Your task to perform on an android device: Search for flights from San Diego to Seattle Image 0: 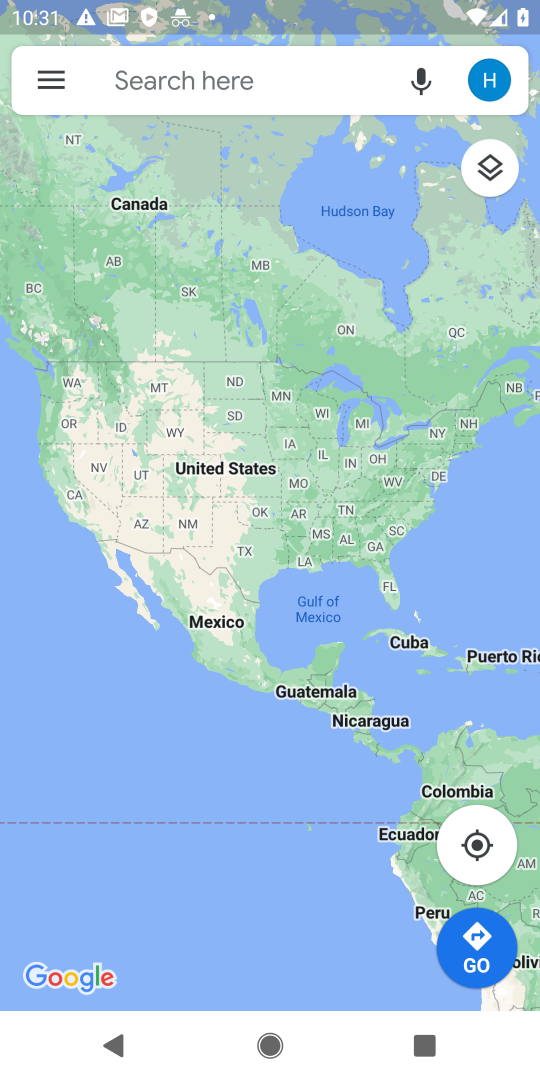
Step 0: press home button
Your task to perform on an android device: Search for flights from San Diego to Seattle Image 1: 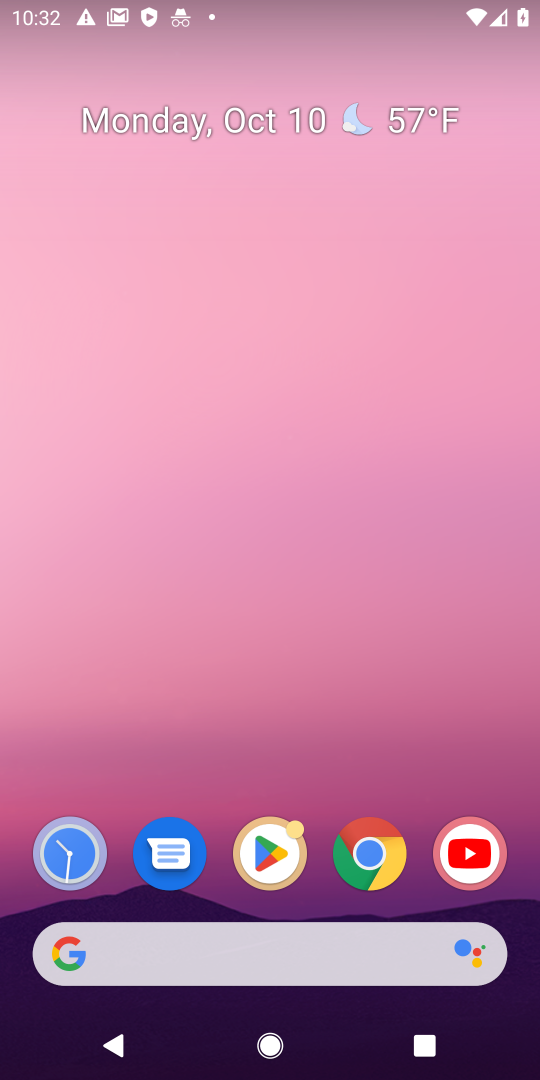
Step 1: click (308, 944)
Your task to perform on an android device: Search for flights from San Diego to Seattle Image 2: 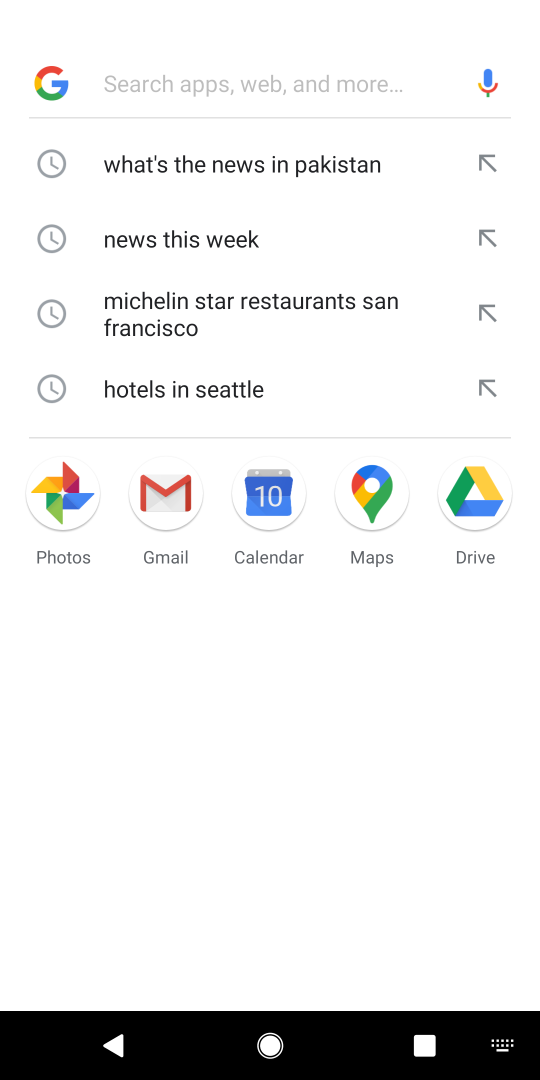
Step 2: type "flights from San Diego to Seattle"
Your task to perform on an android device: Search for flights from San Diego to Seattle Image 3: 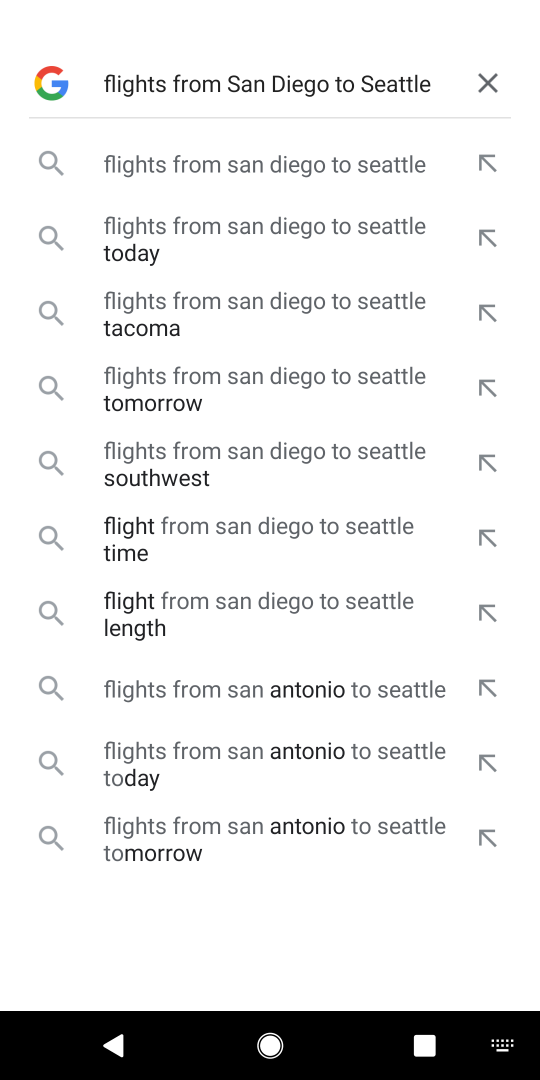
Step 3: press enter
Your task to perform on an android device: Search for flights from San Diego to Seattle Image 4: 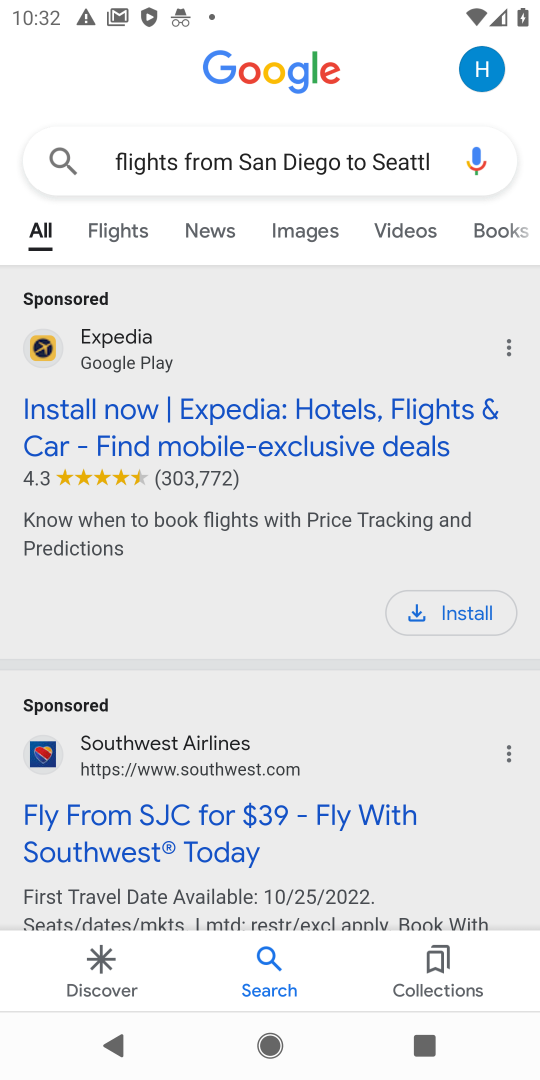
Step 4: drag from (360, 778) to (392, 479)
Your task to perform on an android device: Search for flights from San Diego to Seattle Image 5: 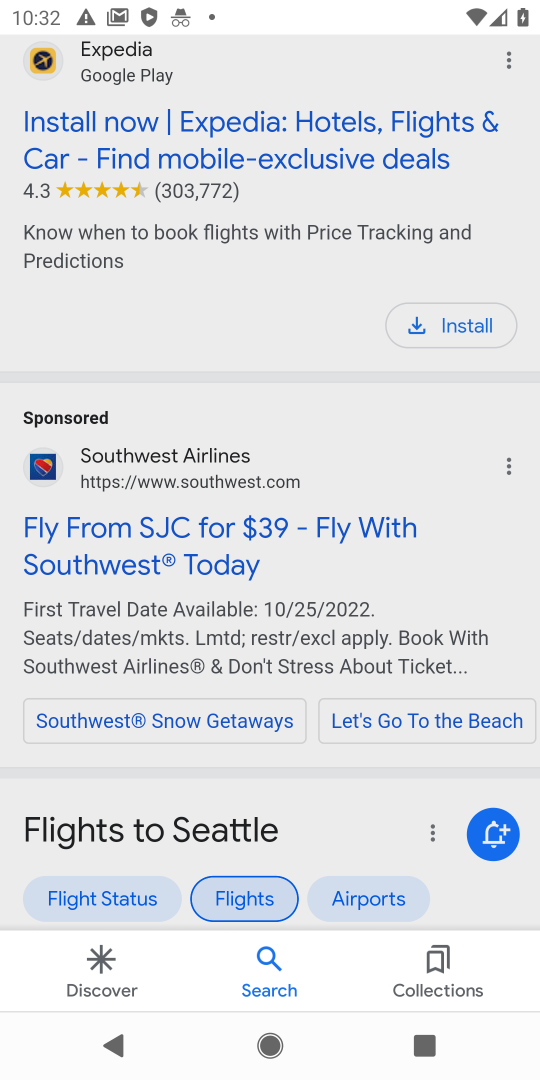
Step 5: drag from (344, 808) to (387, 472)
Your task to perform on an android device: Search for flights from San Diego to Seattle Image 6: 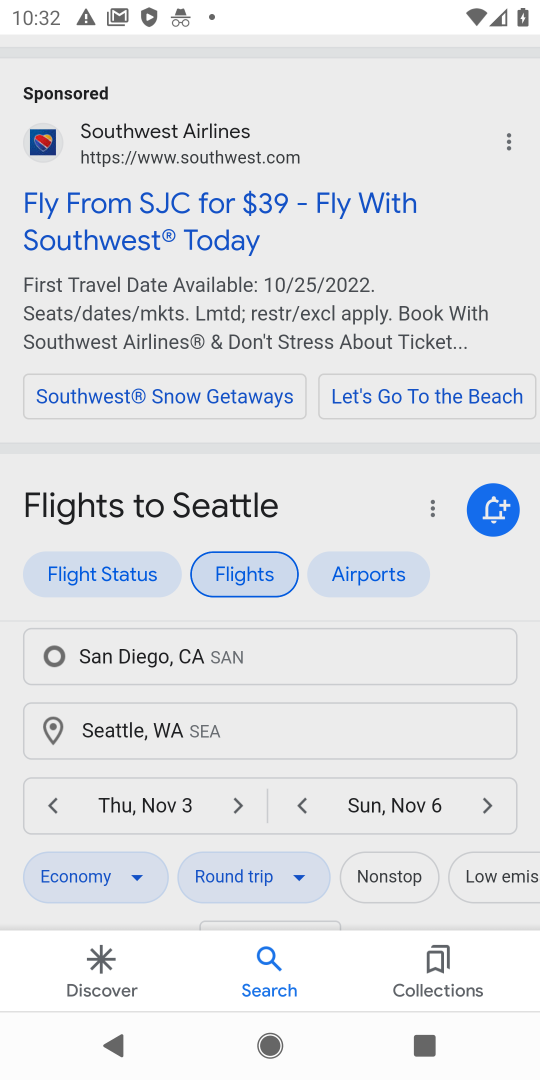
Step 6: drag from (311, 819) to (346, 489)
Your task to perform on an android device: Search for flights from San Diego to Seattle Image 7: 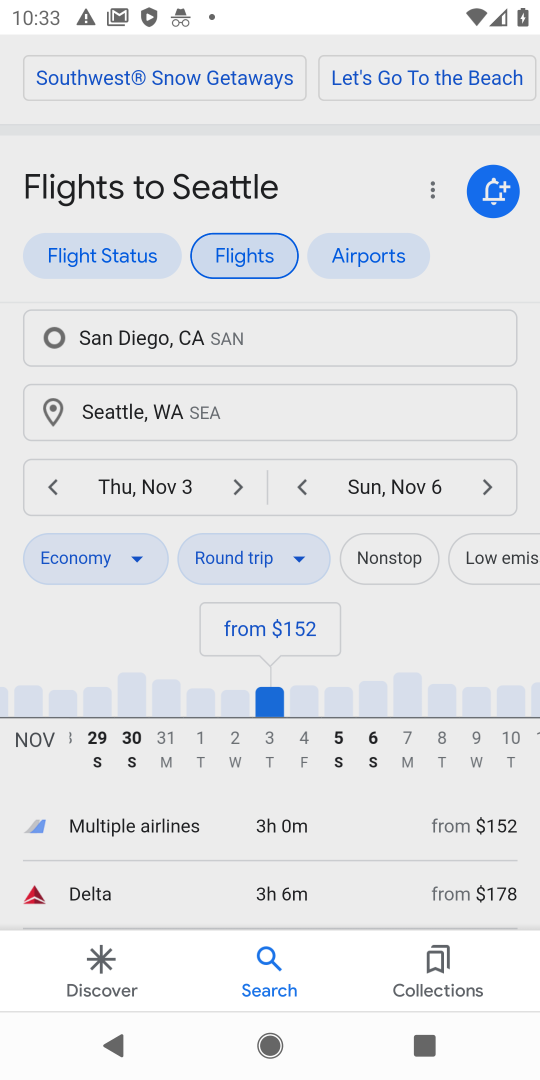
Step 7: drag from (395, 798) to (409, 462)
Your task to perform on an android device: Search for flights from San Diego to Seattle Image 8: 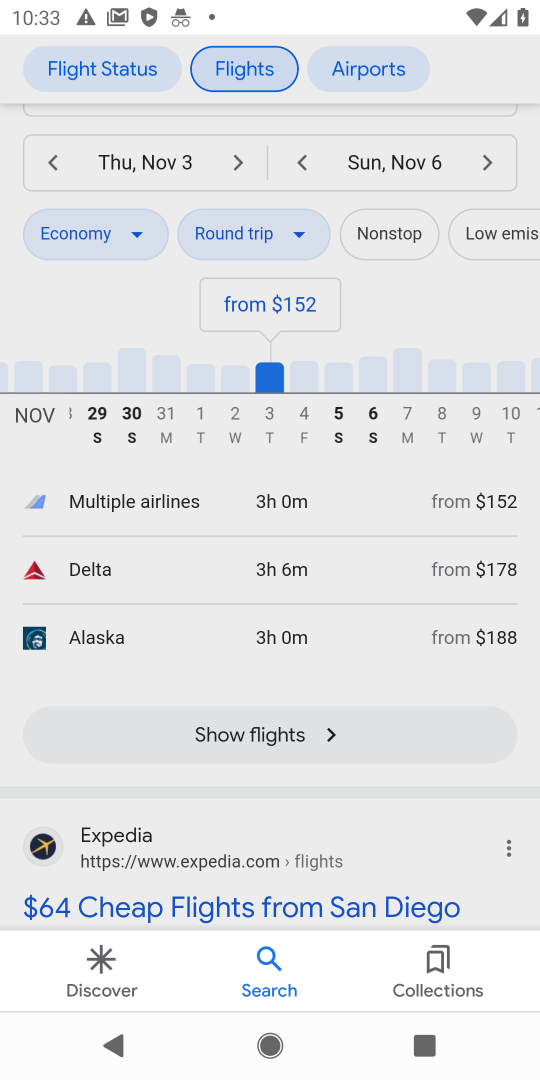
Step 8: click (245, 732)
Your task to perform on an android device: Search for flights from San Diego to Seattle Image 9: 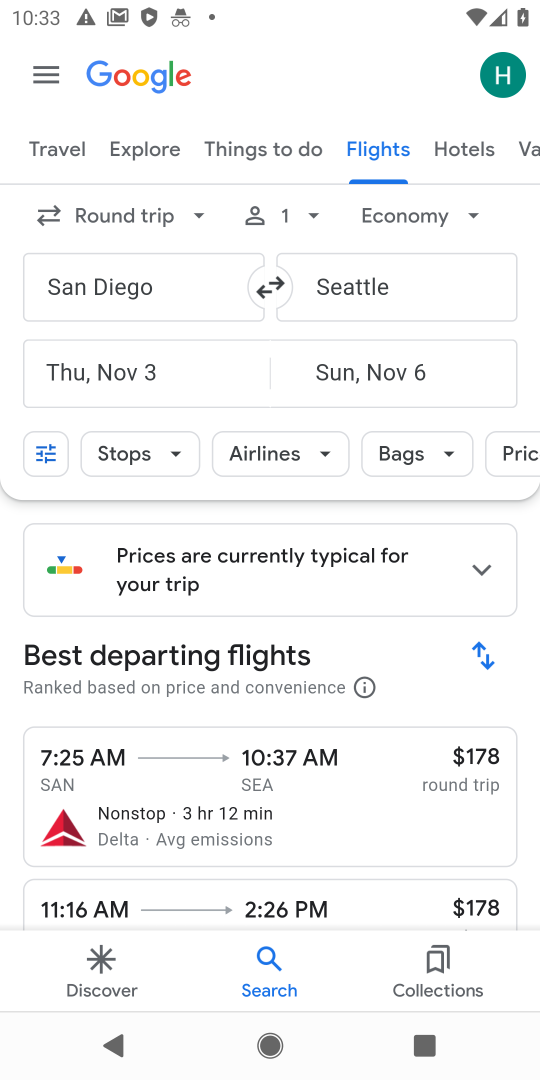
Step 9: task complete